Your task to perform on an android device: Go to network settings Image 0: 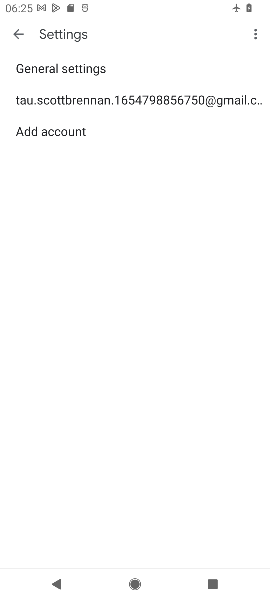
Step 0: press home button
Your task to perform on an android device: Go to network settings Image 1: 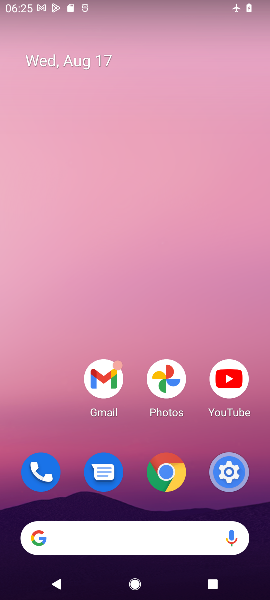
Step 1: click (229, 474)
Your task to perform on an android device: Go to network settings Image 2: 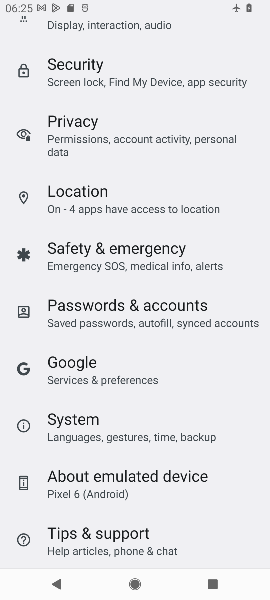
Step 2: drag from (137, 249) to (138, 447)
Your task to perform on an android device: Go to network settings Image 3: 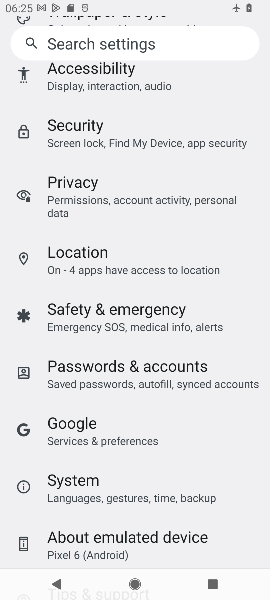
Step 3: drag from (145, 170) to (124, 486)
Your task to perform on an android device: Go to network settings Image 4: 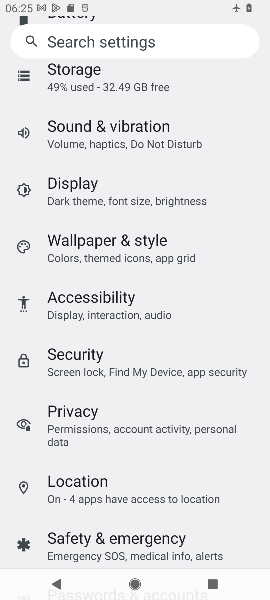
Step 4: drag from (139, 154) to (140, 496)
Your task to perform on an android device: Go to network settings Image 5: 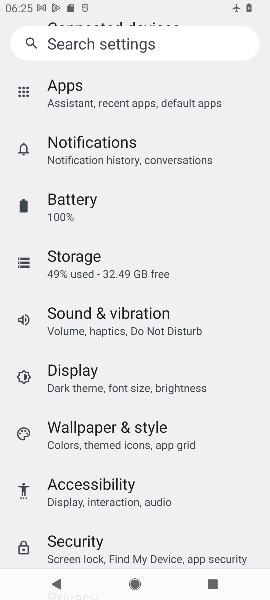
Step 5: drag from (142, 268) to (138, 482)
Your task to perform on an android device: Go to network settings Image 6: 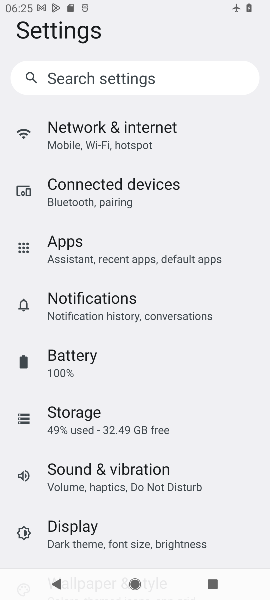
Step 6: click (137, 134)
Your task to perform on an android device: Go to network settings Image 7: 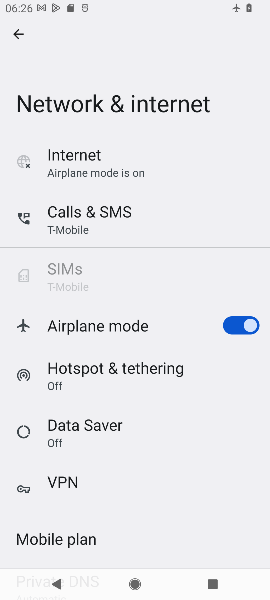
Step 7: task complete